Your task to perform on an android device: Go to calendar. Show me events next week Image 0: 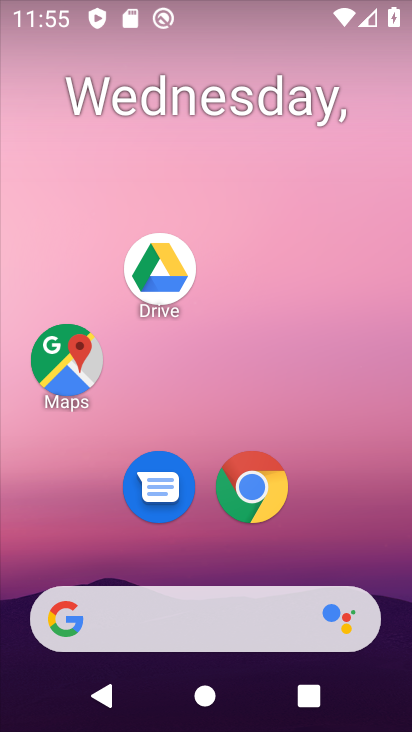
Step 0: drag from (194, 463) to (260, 46)
Your task to perform on an android device: Go to calendar. Show me events next week Image 1: 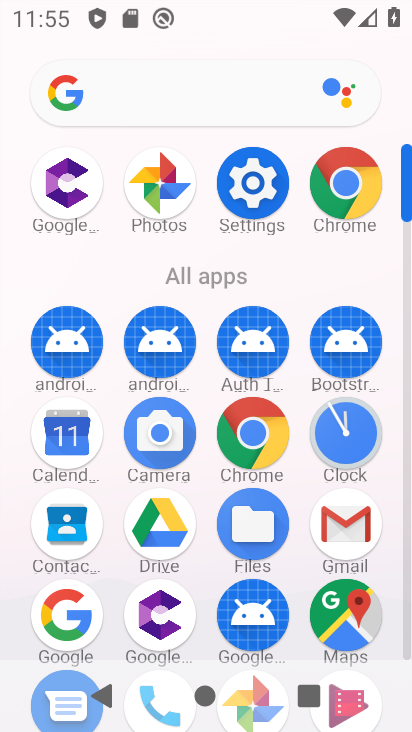
Step 1: click (66, 459)
Your task to perform on an android device: Go to calendar. Show me events next week Image 2: 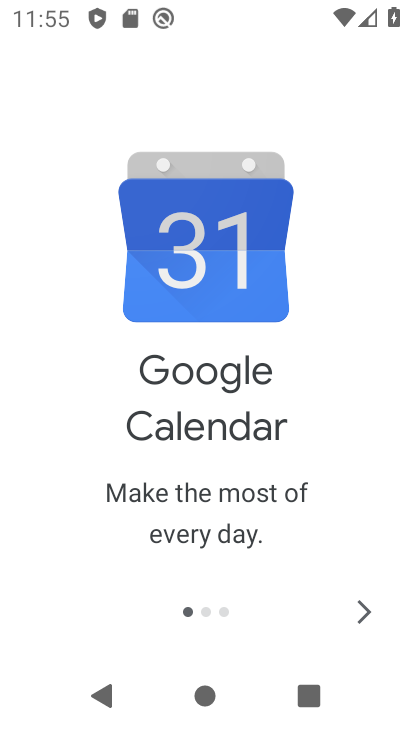
Step 2: click (367, 612)
Your task to perform on an android device: Go to calendar. Show me events next week Image 3: 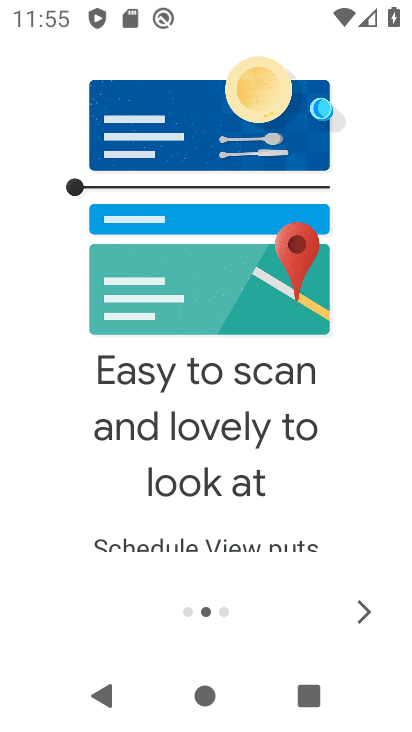
Step 3: click (367, 612)
Your task to perform on an android device: Go to calendar. Show me events next week Image 4: 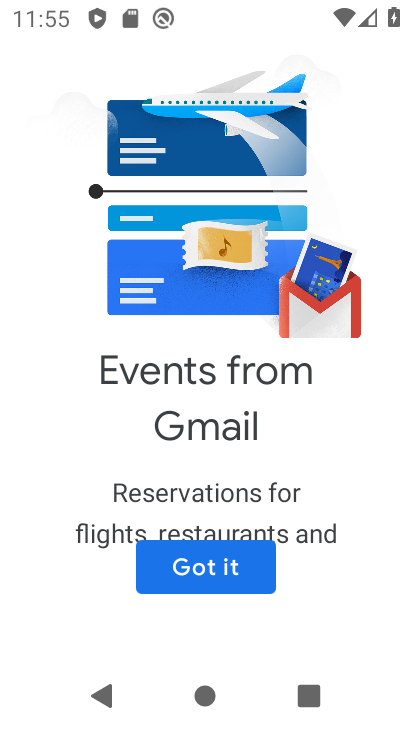
Step 4: click (261, 572)
Your task to perform on an android device: Go to calendar. Show me events next week Image 5: 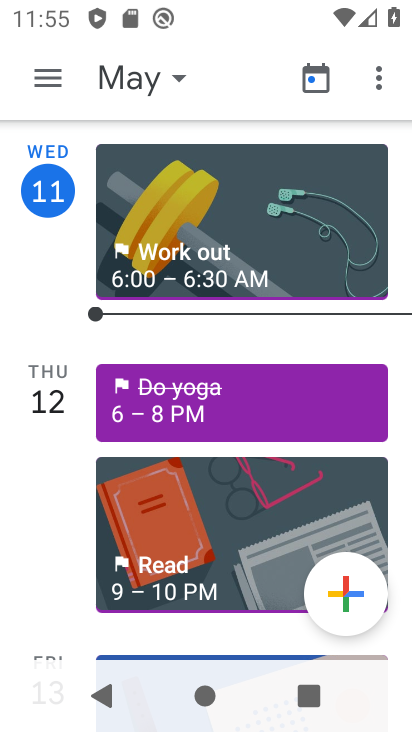
Step 5: click (49, 83)
Your task to perform on an android device: Go to calendar. Show me events next week Image 6: 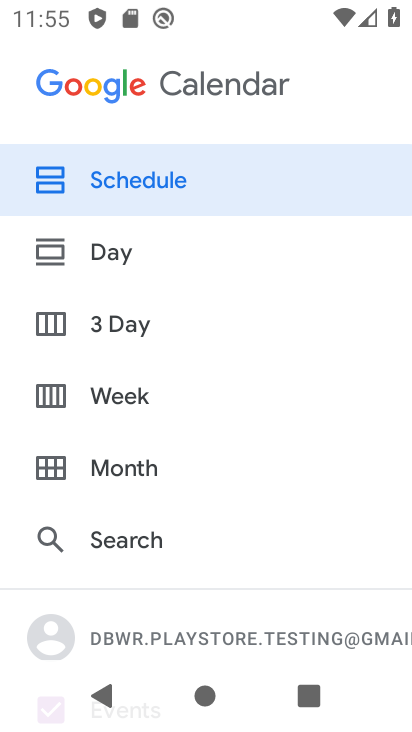
Step 6: drag from (126, 566) to (172, 166)
Your task to perform on an android device: Go to calendar. Show me events next week Image 7: 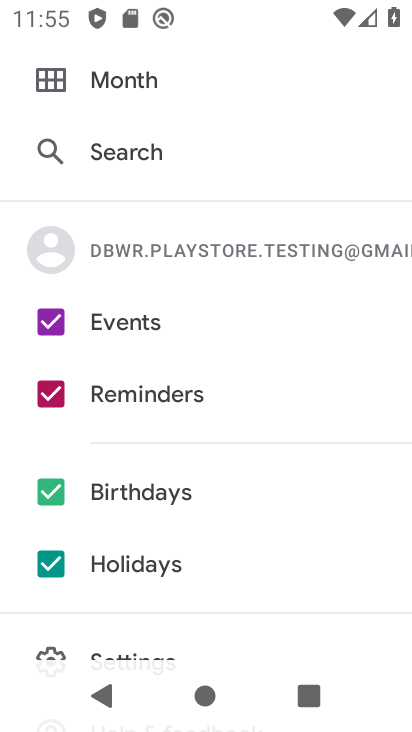
Step 7: click (44, 399)
Your task to perform on an android device: Go to calendar. Show me events next week Image 8: 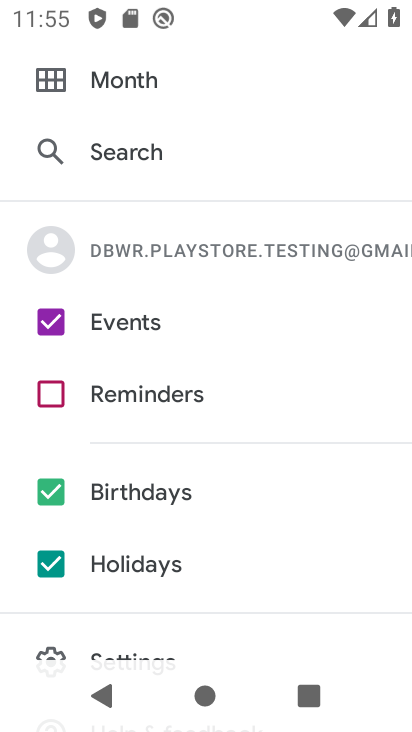
Step 8: click (55, 499)
Your task to perform on an android device: Go to calendar. Show me events next week Image 9: 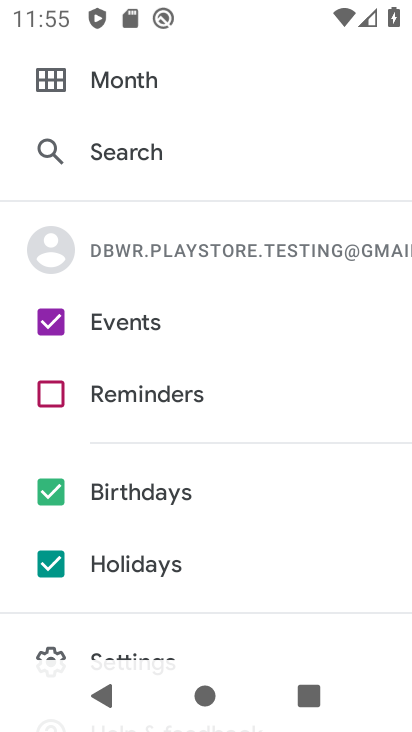
Step 9: click (49, 564)
Your task to perform on an android device: Go to calendar. Show me events next week Image 10: 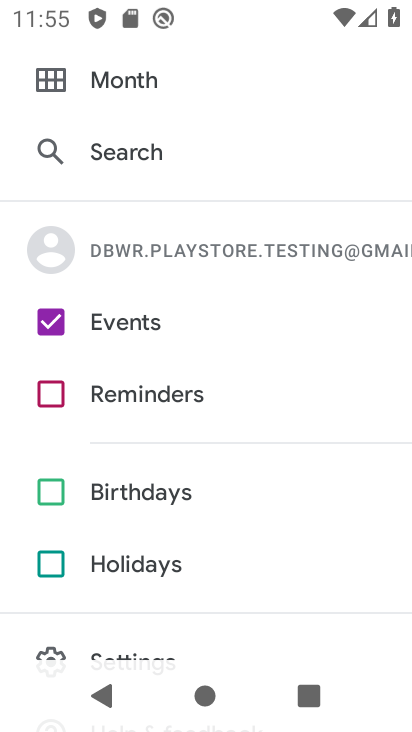
Step 10: press back button
Your task to perform on an android device: Go to calendar. Show me events next week Image 11: 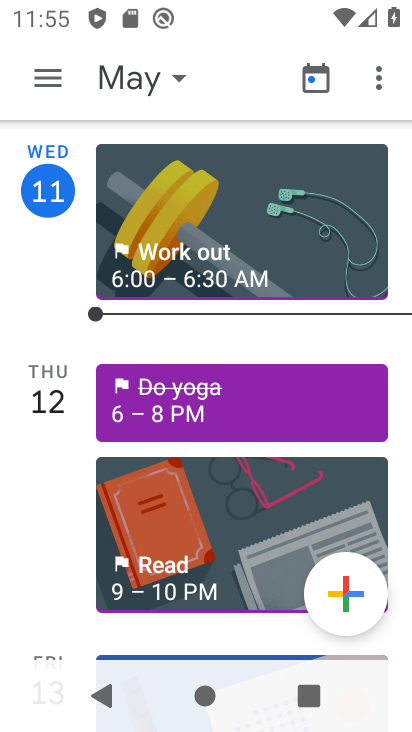
Step 11: click (43, 79)
Your task to perform on an android device: Go to calendar. Show me events next week Image 12: 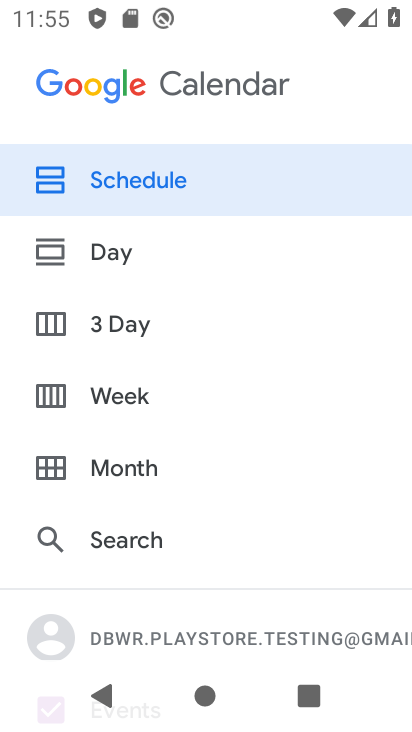
Step 12: click (124, 400)
Your task to perform on an android device: Go to calendar. Show me events next week Image 13: 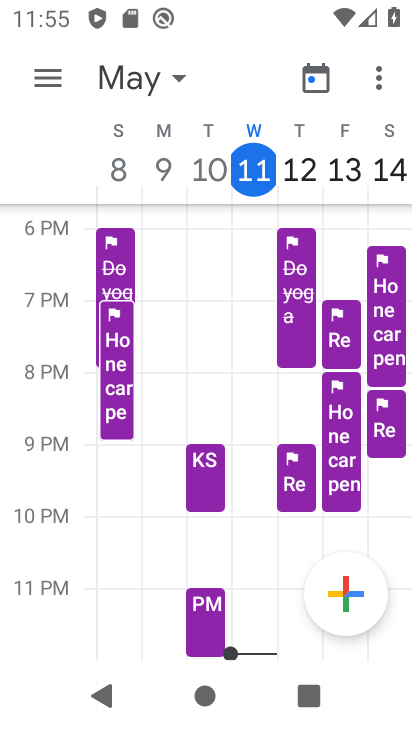
Step 13: task complete